Your task to perform on an android device: Open the web browser Image 0: 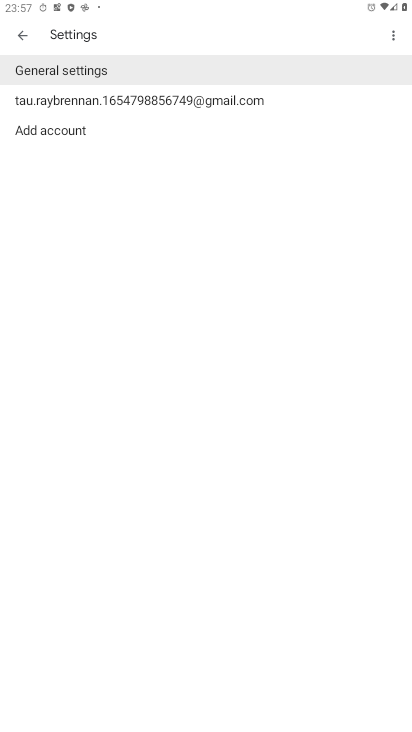
Step 0: press home button
Your task to perform on an android device: Open the web browser Image 1: 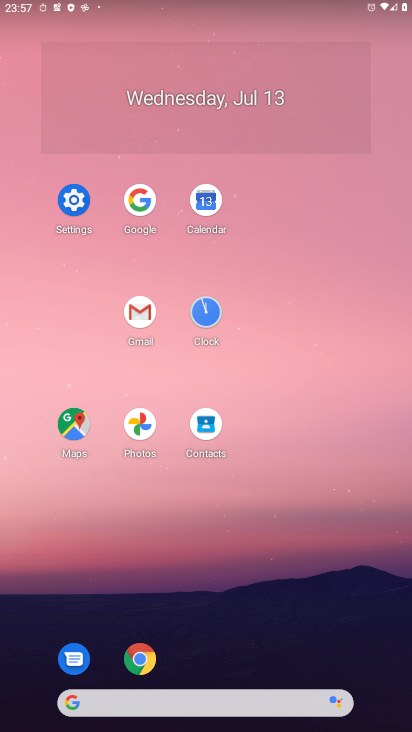
Step 1: click (147, 648)
Your task to perform on an android device: Open the web browser Image 2: 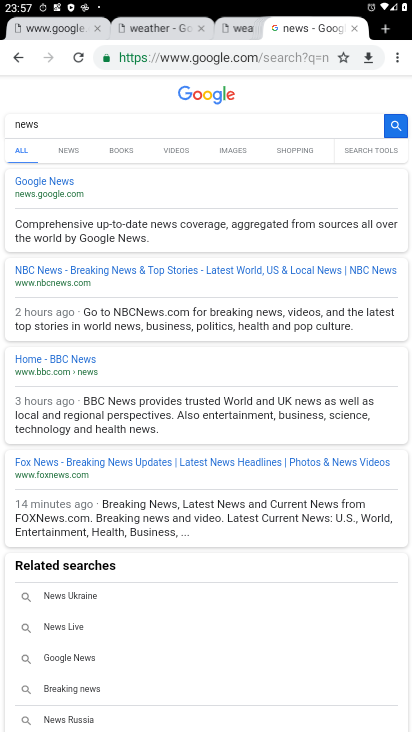
Step 2: task complete